Your task to perform on an android device: Open a new Chrome private tab Image 0: 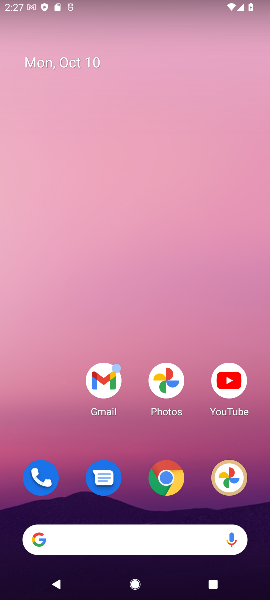
Step 0: click (162, 463)
Your task to perform on an android device: Open a new Chrome private tab Image 1: 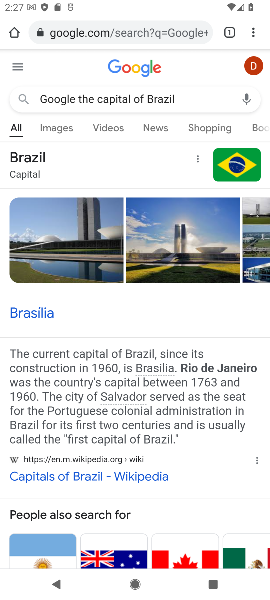
Step 1: click (233, 31)
Your task to perform on an android device: Open a new Chrome private tab Image 2: 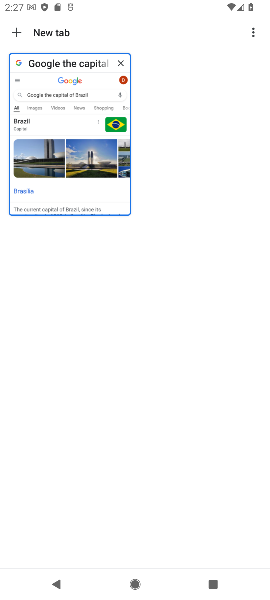
Step 2: click (255, 33)
Your task to perform on an android device: Open a new Chrome private tab Image 3: 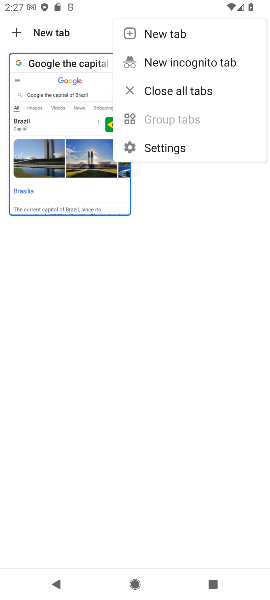
Step 3: click (190, 59)
Your task to perform on an android device: Open a new Chrome private tab Image 4: 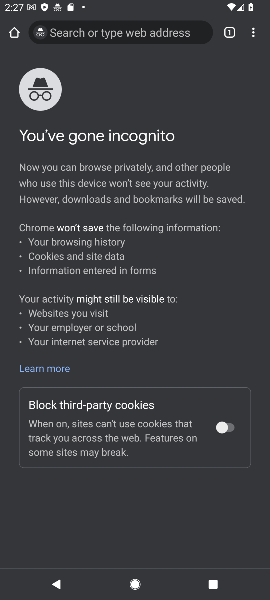
Step 4: task complete